Your task to perform on an android device: manage bookmarks in the chrome app Image 0: 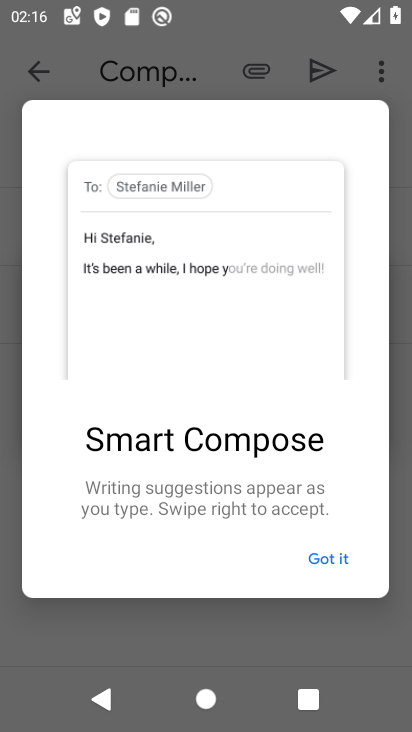
Step 0: click (344, 555)
Your task to perform on an android device: manage bookmarks in the chrome app Image 1: 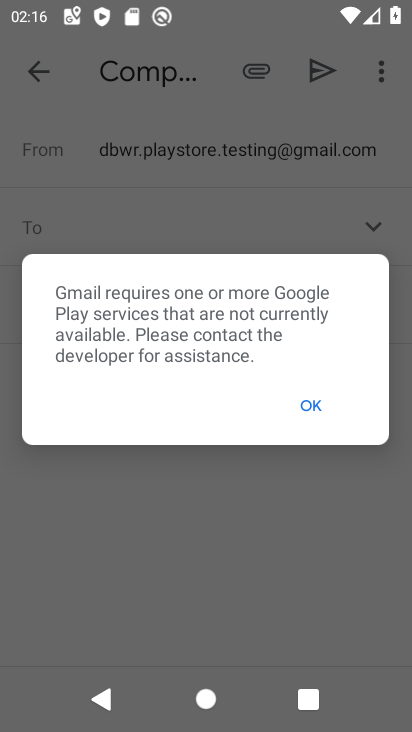
Step 1: press home button
Your task to perform on an android device: manage bookmarks in the chrome app Image 2: 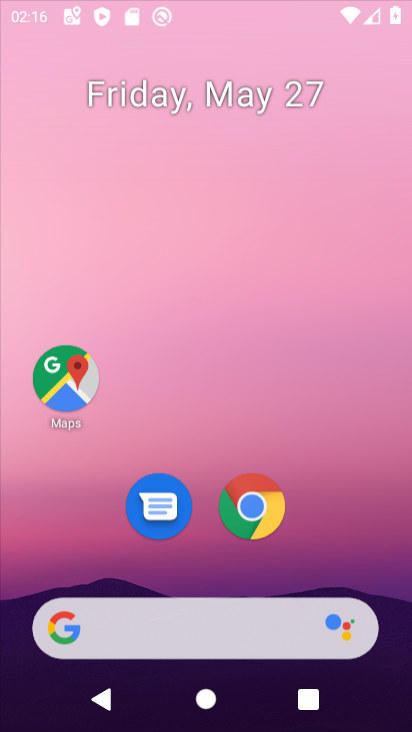
Step 2: drag from (194, 610) to (125, 10)
Your task to perform on an android device: manage bookmarks in the chrome app Image 3: 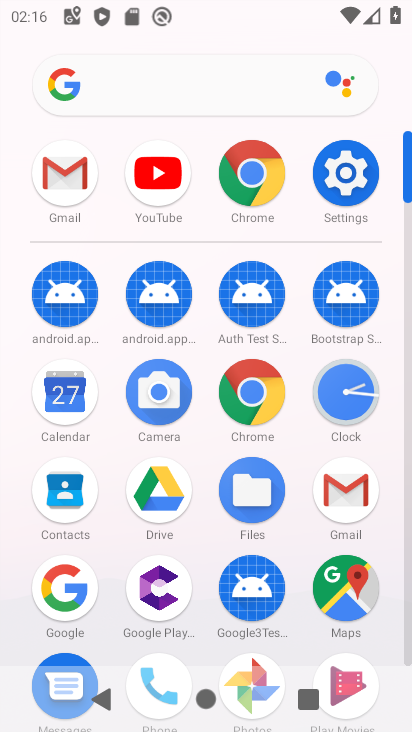
Step 3: click (243, 393)
Your task to perform on an android device: manage bookmarks in the chrome app Image 4: 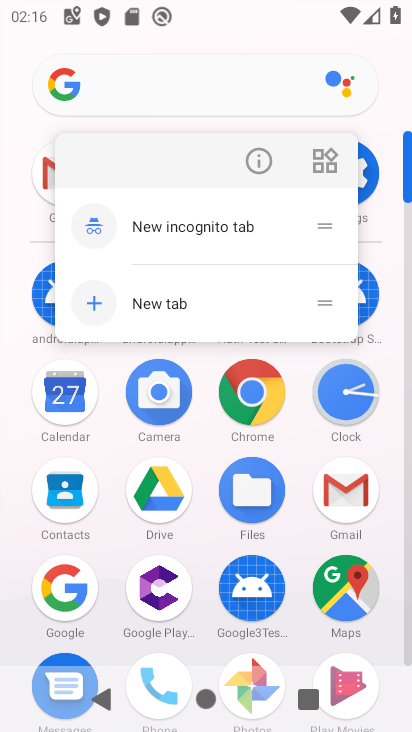
Step 4: click (253, 167)
Your task to perform on an android device: manage bookmarks in the chrome app Image 5: 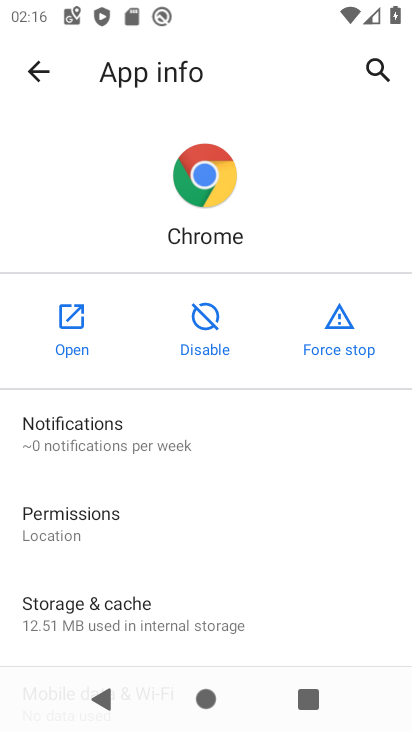
Step 5: click (64, 330)
Your task to perform on an android device: manage bookmarks in the chrome app Image 6: 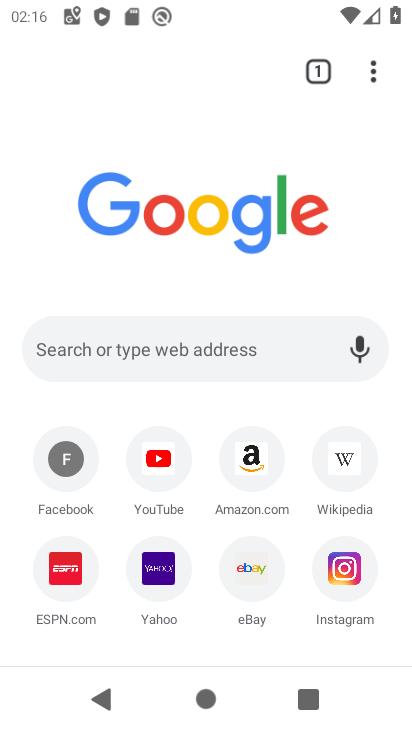
Step 6: drag from (379, 64) to (156, 174)
Your task to perform on an android device: manage bookmarks in the chrome app Image 7: 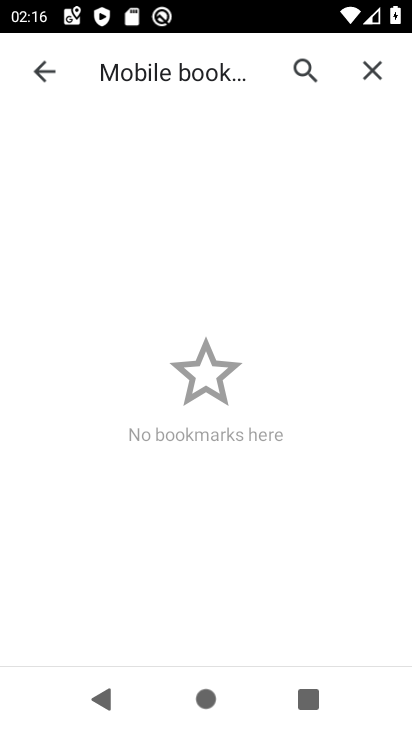
Step 7: drag from (202, 435) to (236, 266)
Your task to perform on an android device: manage bookmarks in the chrome app Image 8: 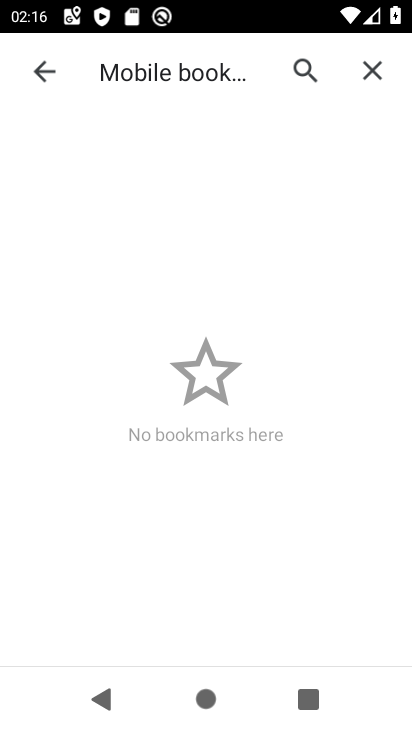
Step 8: click (236, 228)
Your task to perform on an android device: manage bookmarks in the chrome app Image 9: 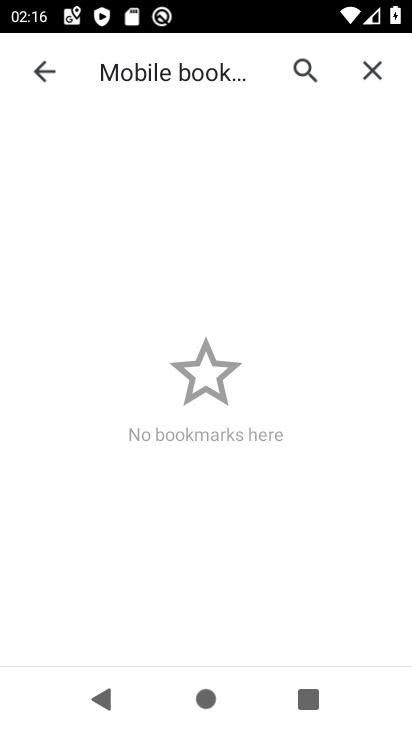
Step 9: task complete